Your task to perform on an android device: Show me recent news Image 0: 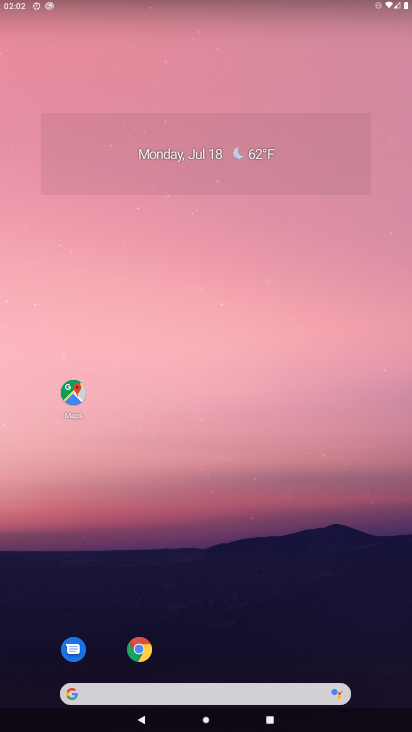
Step 0: click (106, 686)
Your task to perform on an android device: Show me recent news Image 1: 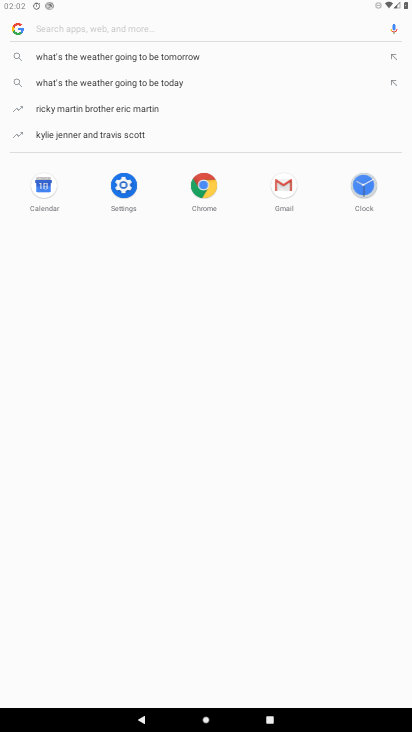
Step 1: type "recent news"
Your task to perform on an android device: Show me recent news Image 2: 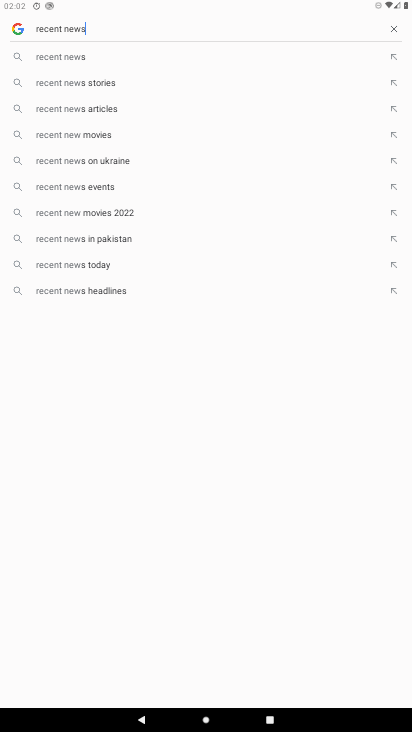
Step 2: type ""
Your task to perform on an android device: Show me recent news Image 3: 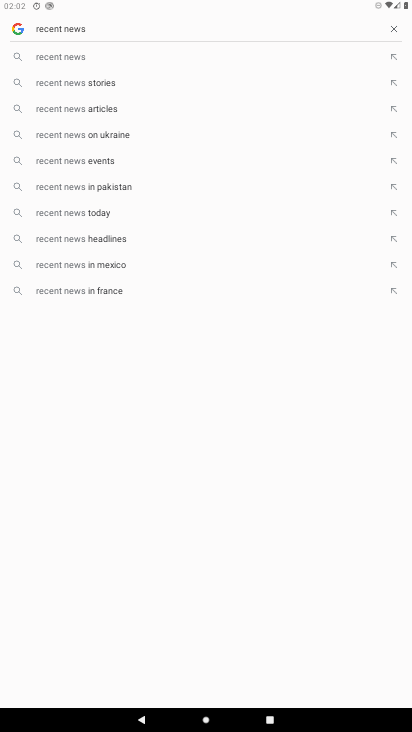
Step 3: click (62, 52)
Your task to perform on an android device: Show me recent news Image 4: 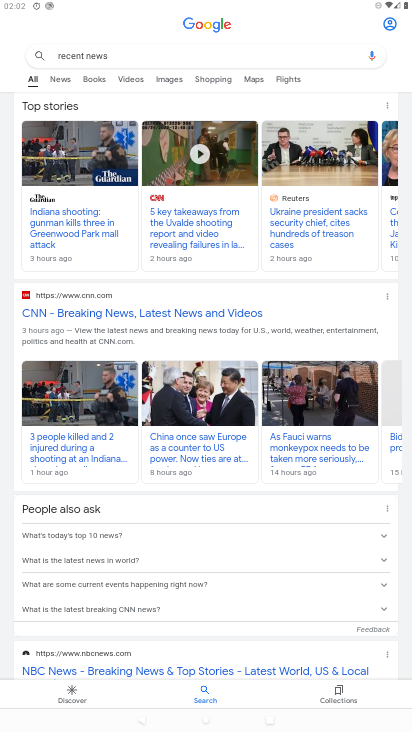
Step 4: task complete